Your task to perform on an android device: When is my next meeting? Image 0: 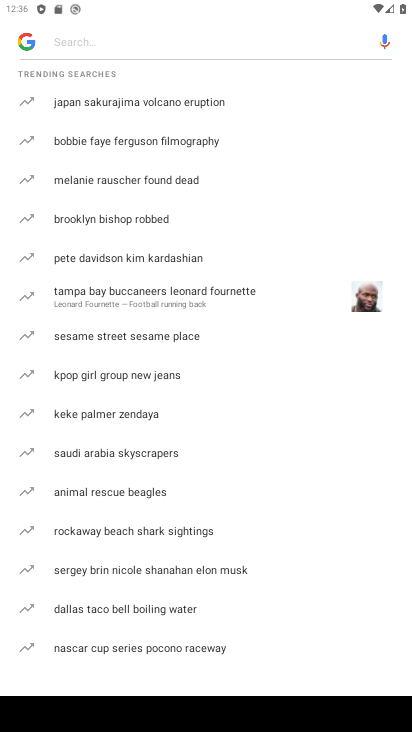
Step 0: press home button
Your task to perform on an android device: When is my next meeting? Image 1: 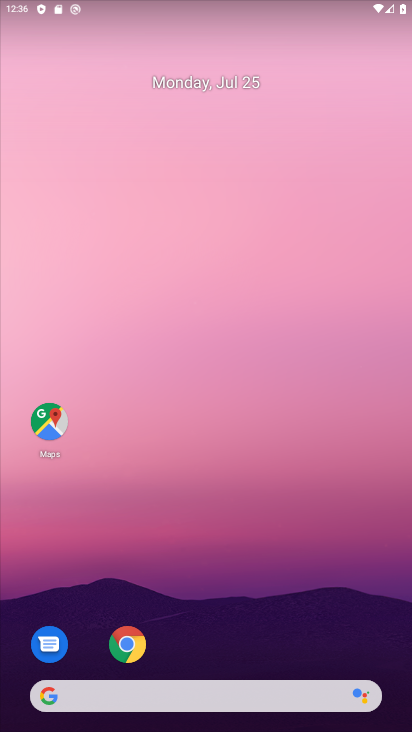
Step 1: drag from (209, 728) to (200, 61)
Your task to perform on an android device: When is my next meeting? Image 2: 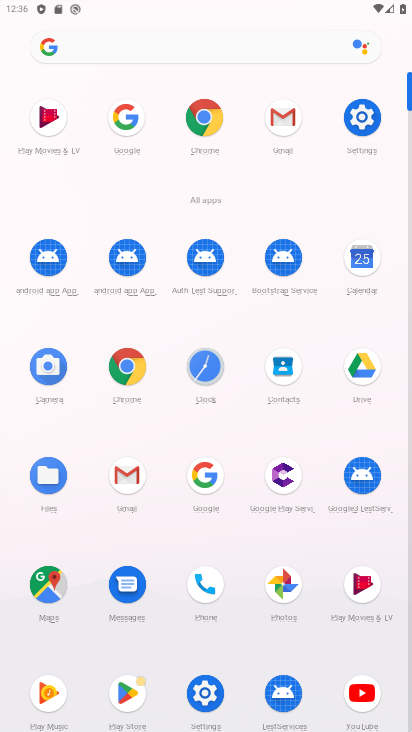
Step 2: click (356, 270)
Your task to perform on an android device: When is my next meeting? Image 3: 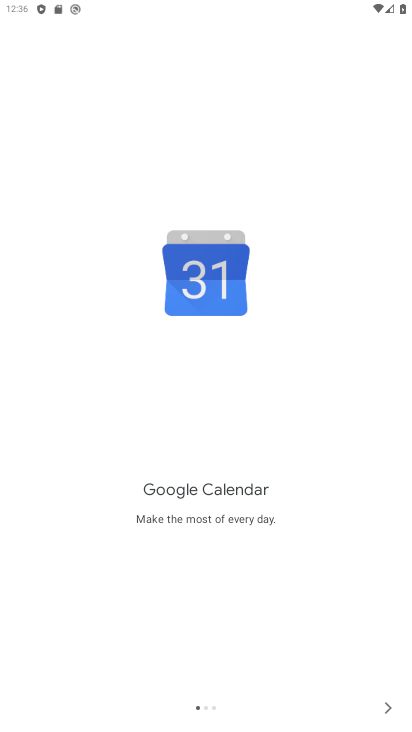
Step 3: click (385, 701)
Your task to perform on an android device: When is my next meeting? Image 4: 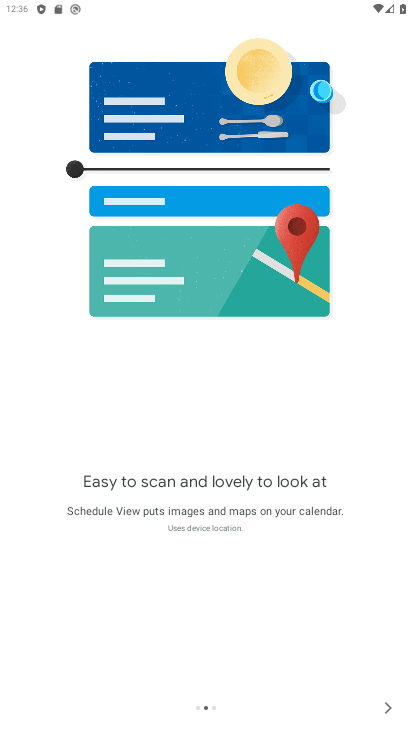
Step 4: click (389, 704)
Your task to perform on an android device: When is my next meeting? Image 5: 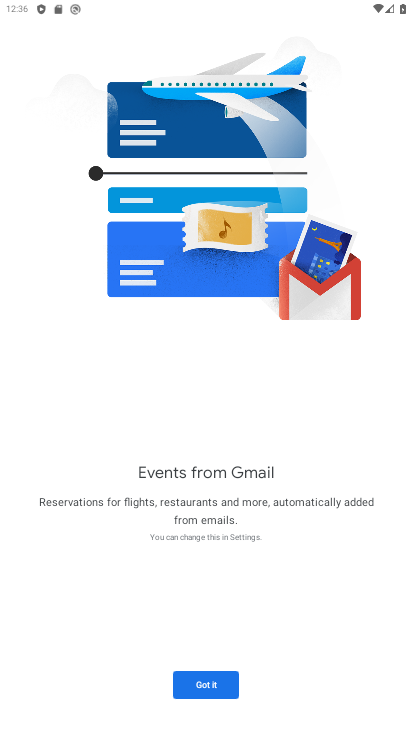
Step 5: click (207, 682)
Your task to perform on an android device: When is my next meeting? Image 6: 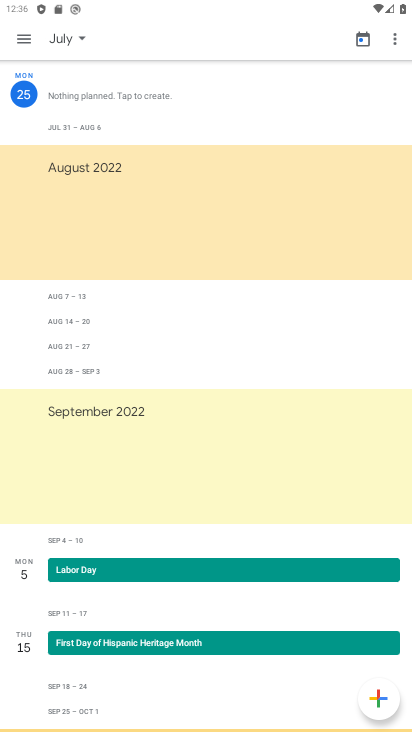
Step 6: click (207, 682)
Your task to perform on an android device: When is my next meeting? Image 7: 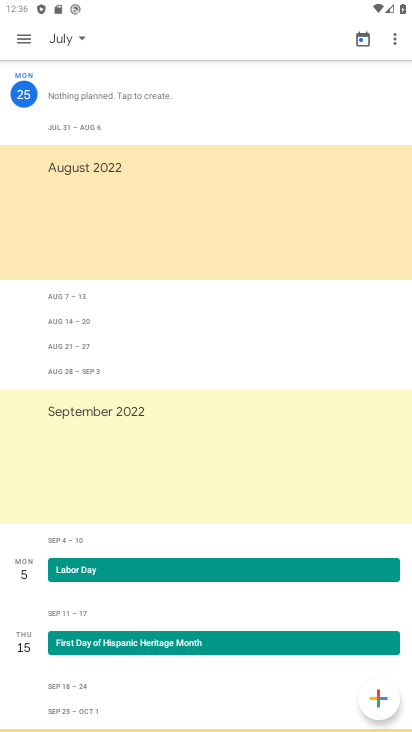
Step 7: click (85, 32)
Your task to perform on an android device: When is my next meeting? Image 8: 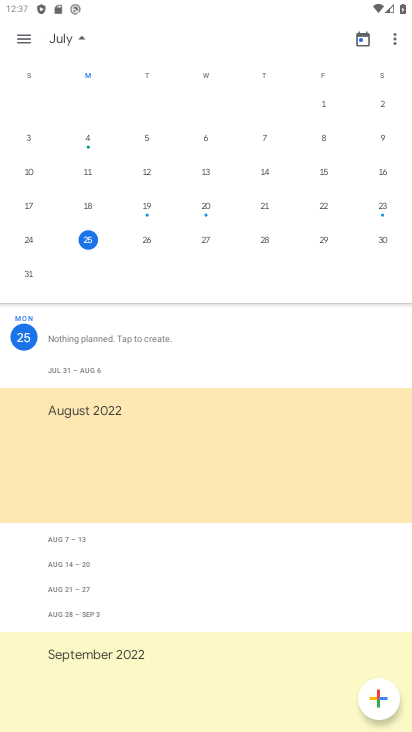
Step 8: click (146, 235)
Your task to perform on an android device: When is my next meeting? Image 9: 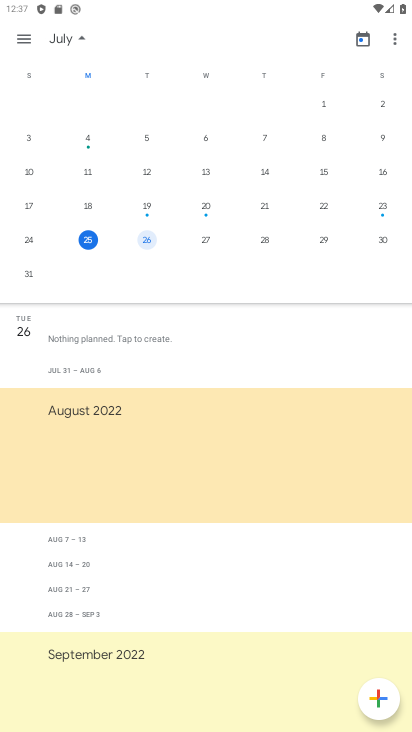
Step 9: click (146, 233)
Your task to perform on an android device: When is my next meeting? Image 10: 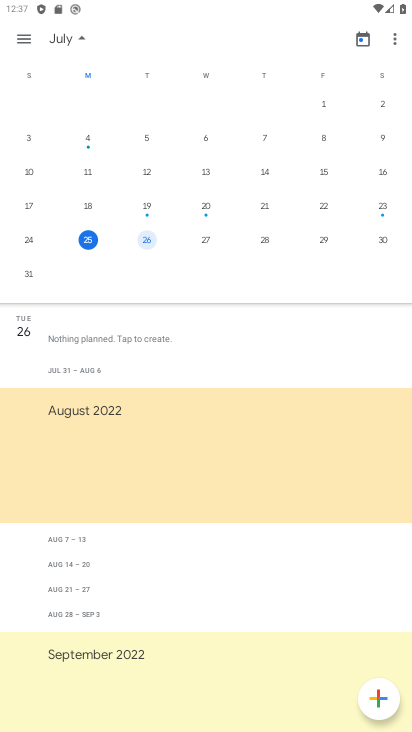
Step 10: click (146, 242)
Your task to perform on an android device: When is my next meeting? Image 11: 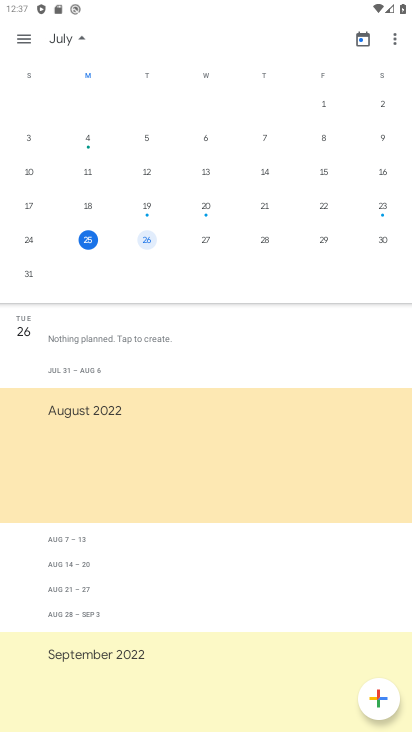
Step 11: click (25, 327)
Your task to perform on an android device: When is my next meeting? Image 12: 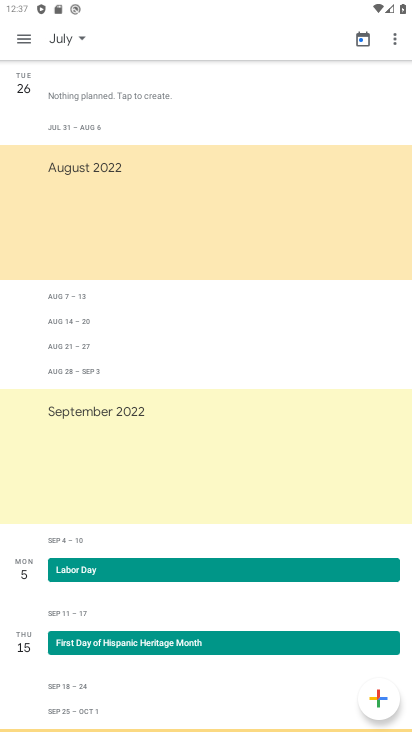
Step 12: click (27, 41)
Your task to perform on an android device: When is my next meeting? Image 13: 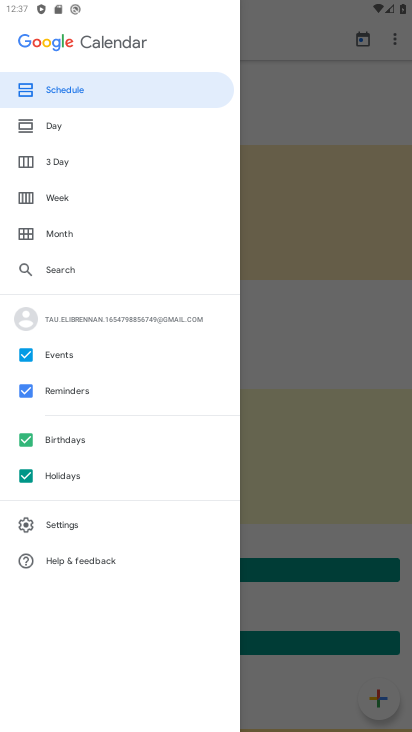
Step 13: click (214, 91)
Your task to perform on an android device: When is my next meeting? Image 14: 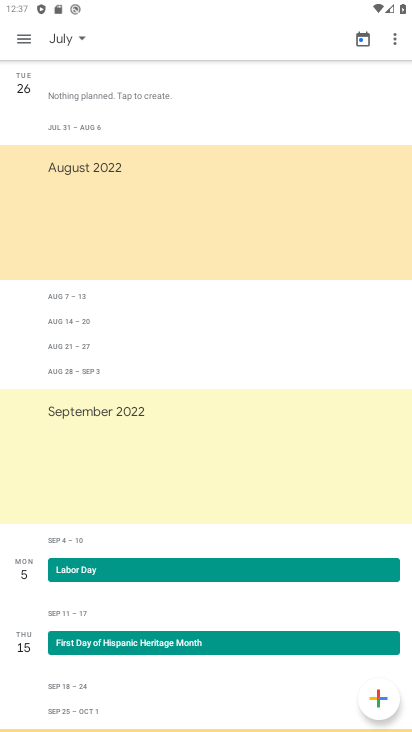
Step 14: task complete